Your task to perform on an android device: Open battery settings Image 0: 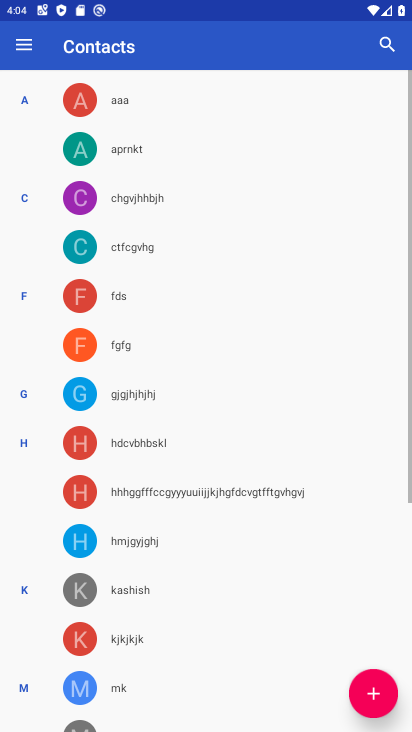
Step 0: click (126, 627)
Your task to perform on an android device: Open battery settings Image 1: 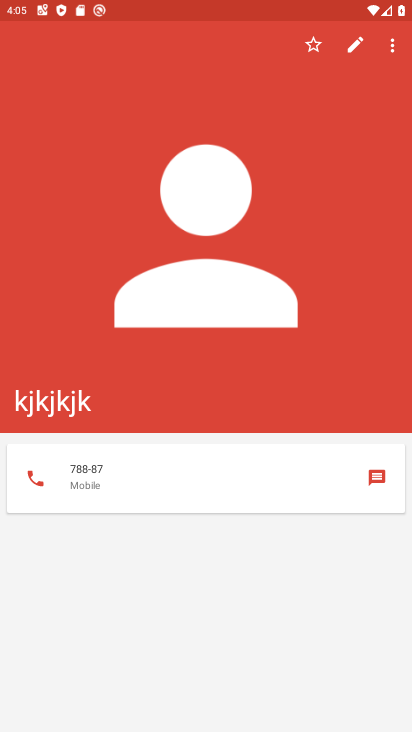
Step 1: press home button
Your task to perform on an android device: Open battery settings Image 2: 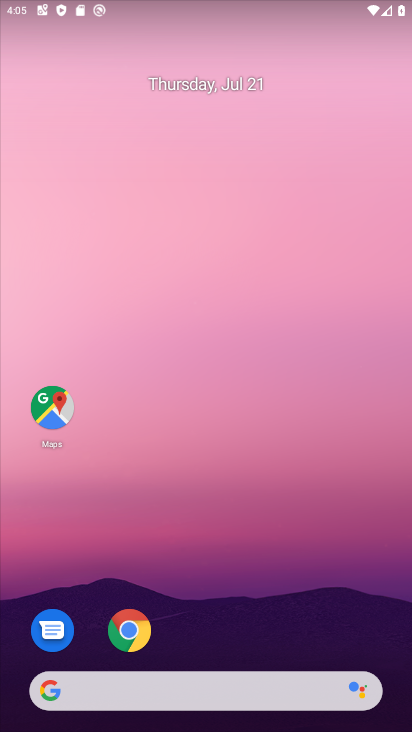
Step 2: drag from (33, 658) to (208, 173)
Your task to perform on an android device: Open battery settings Image 3: 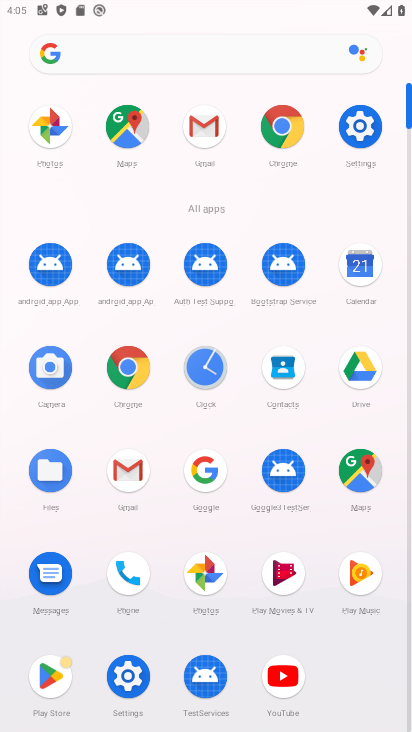
Step 3: click (113, 676)
Your task to perform on an android device: Open battery settings Image 4: 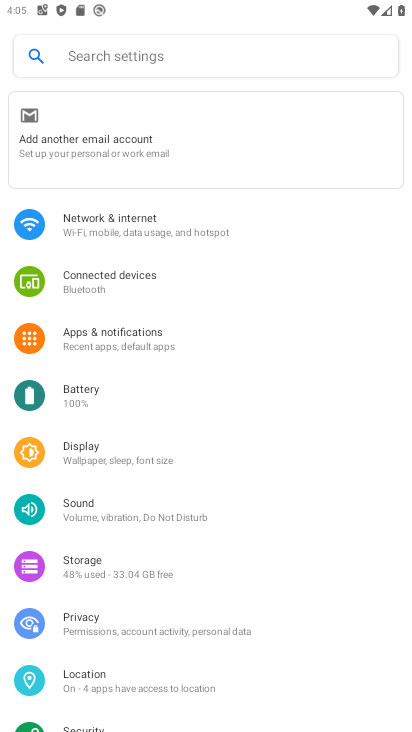
Step 4: click (84, 398)
Your task to perform on an android device: Open battery settings Image 5: 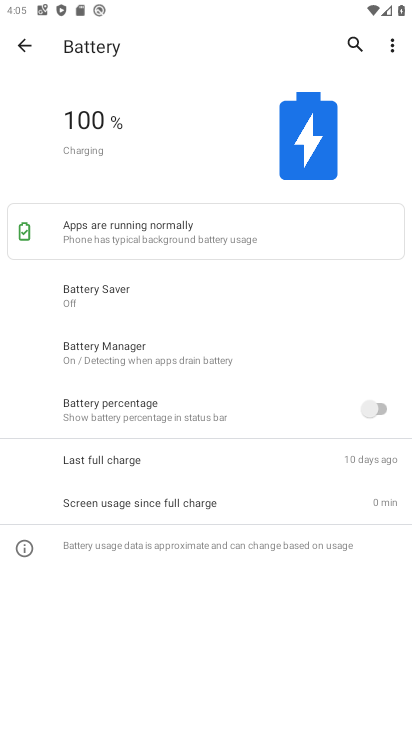
Step 5: task complete